Your task to perform on an android device: toggle pop-ups in chrome Image 0: 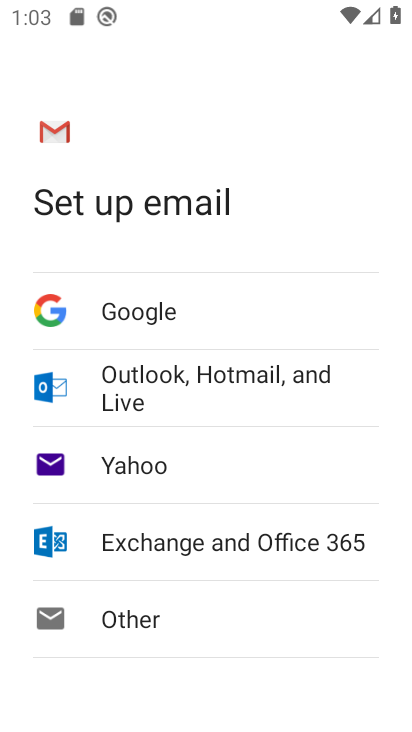
Step 0: press home button
Your task to perform on an android device: toggle pop-ups in chrome Image 1: 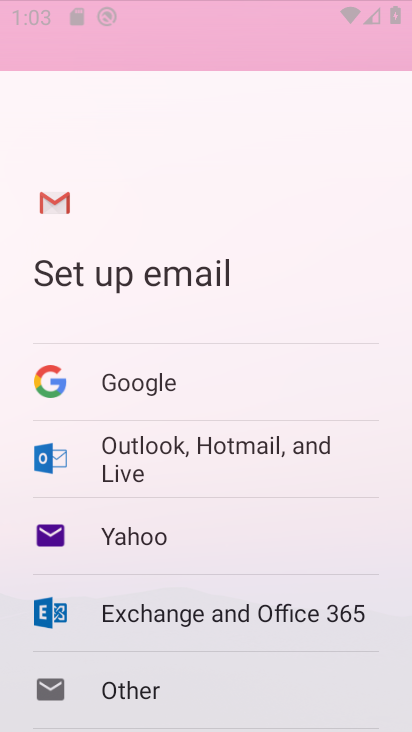
Step 1: drag from (179, 636) to (306, 54)
Your task to perform on an android device: toggle pop-ups in chrome Image 2: 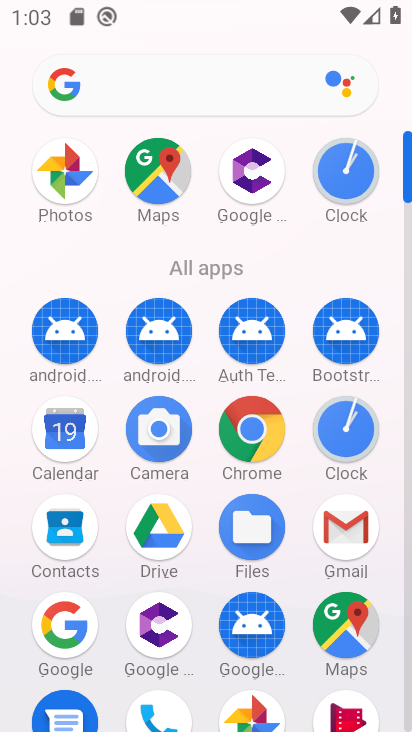
Step 2: click (245, 424)
Your task to perform on an android device: toggle pop-ups in chrome Image 3: 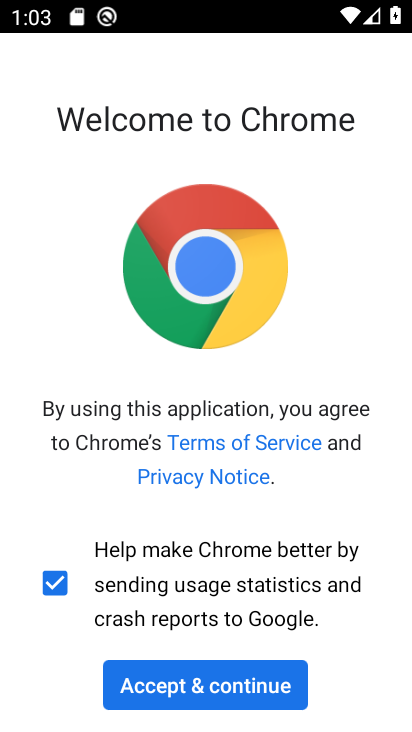
Step 3: click (195, 691)
Your task to perform on an android device: toggle pop-ups in chrome Image 4: 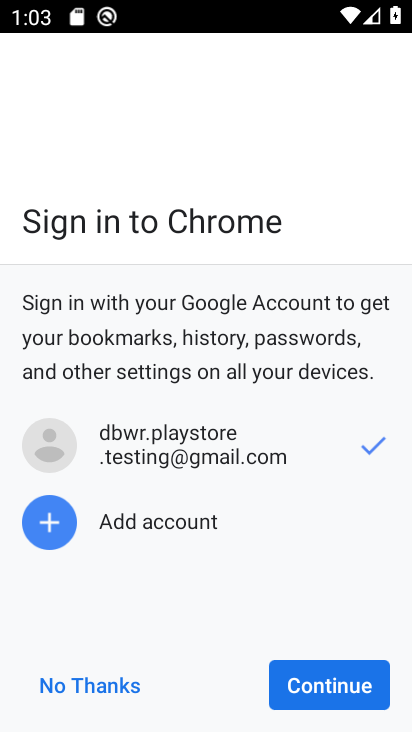
Step 4: click (80, 699)
Your task to perform on an android device: toggle pop-ups in chrome Image 5: 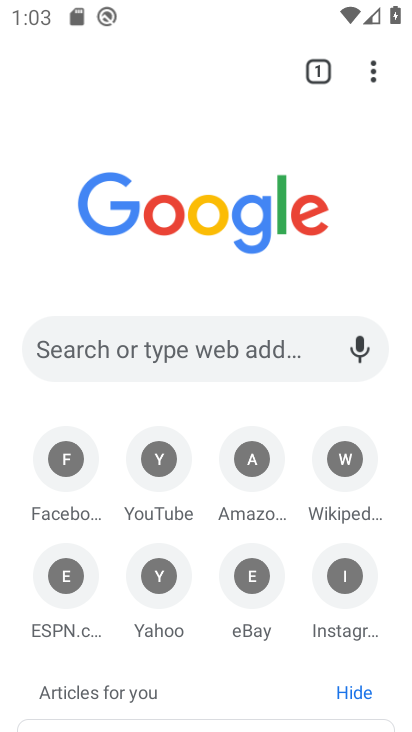
Step 5: click (375, 66)
Your task to perform on an android device: toggle pop-ups in chrome Image 6: 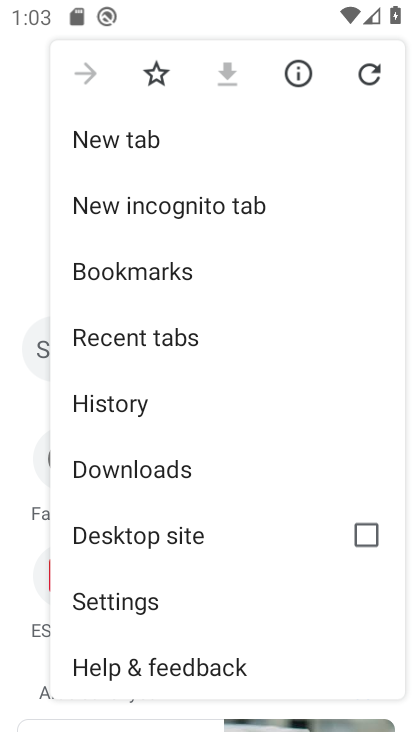
Step 6: click (128, 592)
Your task to perform on an android device: toggle pop-ups in chrome Image 7: 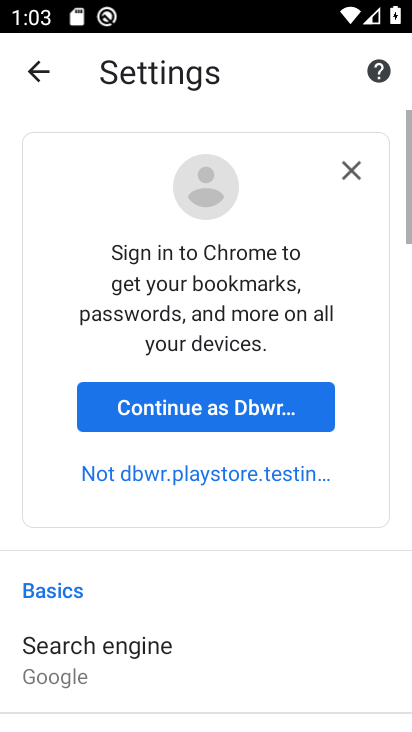
Step 7: drag from (204, 566) to (327, 111)
Your task to perform on an android device: toggle pop-ups in chrome Image 8: 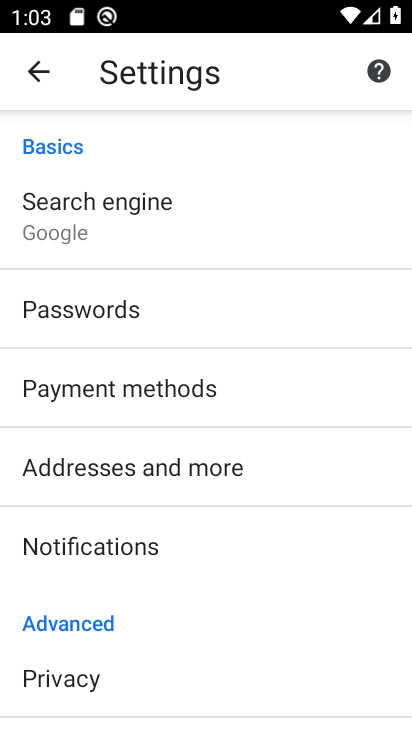
Step 8: drag from (172, 631) to (308, 154)
Your task to perform on an android device: toggle pop-ups in chrome Image 9: 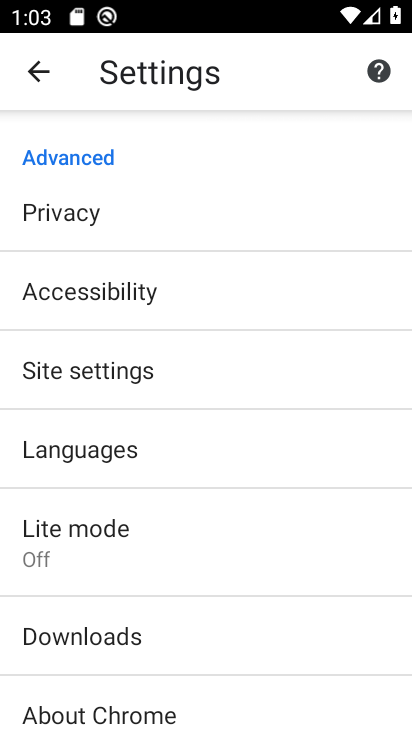
Step 9: drag from (129, 661) to (232, 167)
Your task to perform on an android device: toggle pop-ups in chrome Image 10: 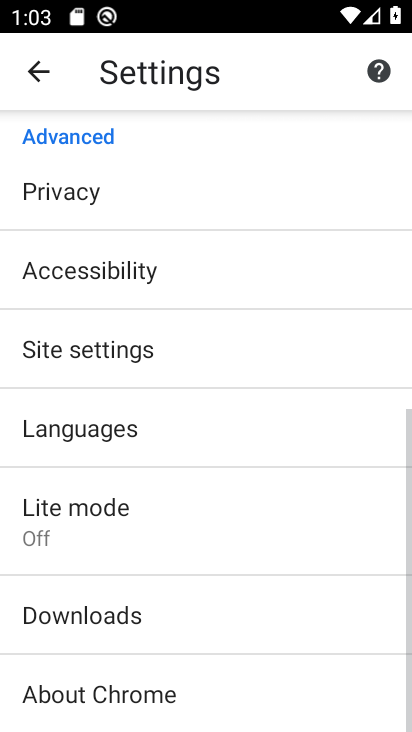
Step 10: click (118, 344)
Your task to perform on an android device: toggle pop-ups in chrome Image 11: 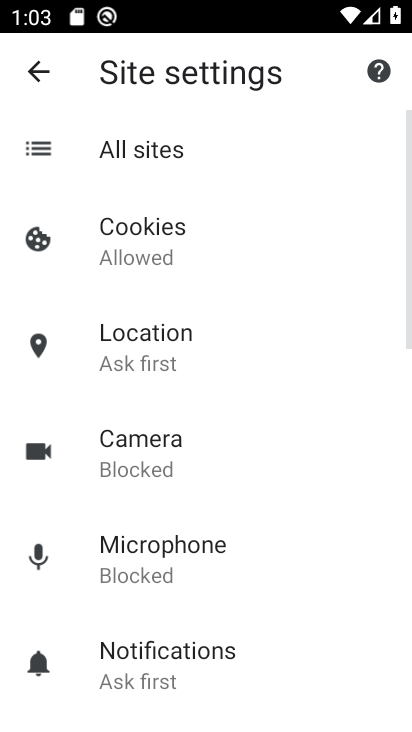
Step 11: drag from (195, 573) to (293, 89)
Your task to perform on an android device: toggle pop-ups in chrome Image 12: 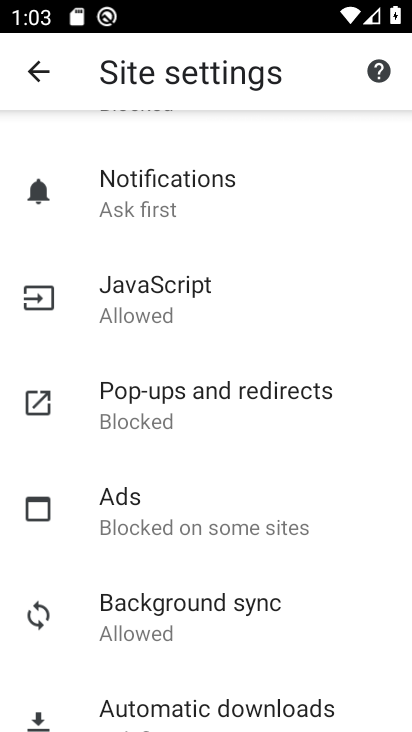
Step 12: click (194, 402)
Your task to perform on an android device: toggle pop-ups in chrome Image 13: 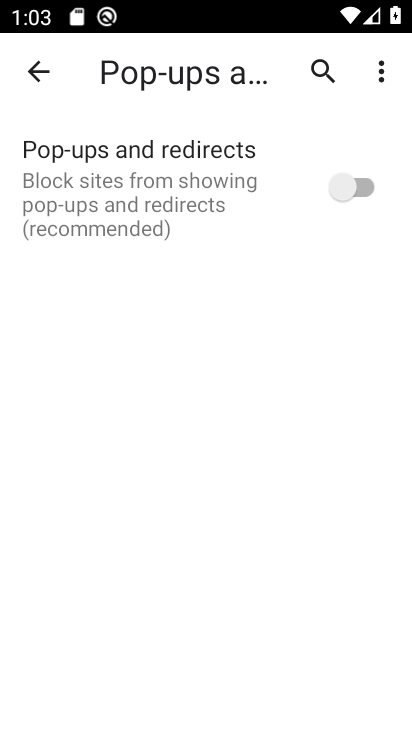
Step 13: click (353, 194)
Your task to perform on an android device: toggle pop-ups in chrome Image 14: 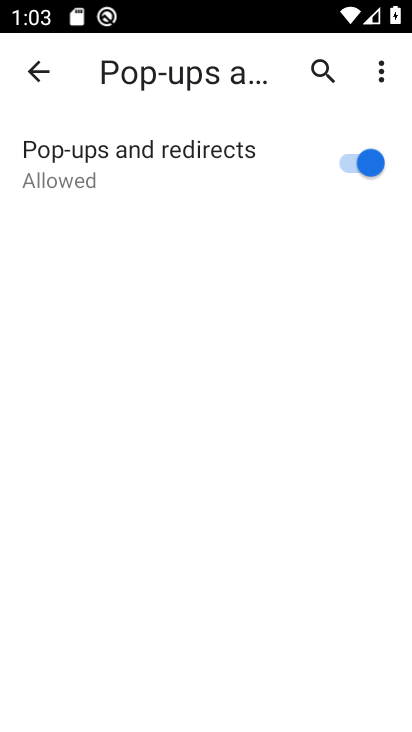
Step 14: task complete